Your task to perform on an android device: How much does the LG TV cost? Image 0: 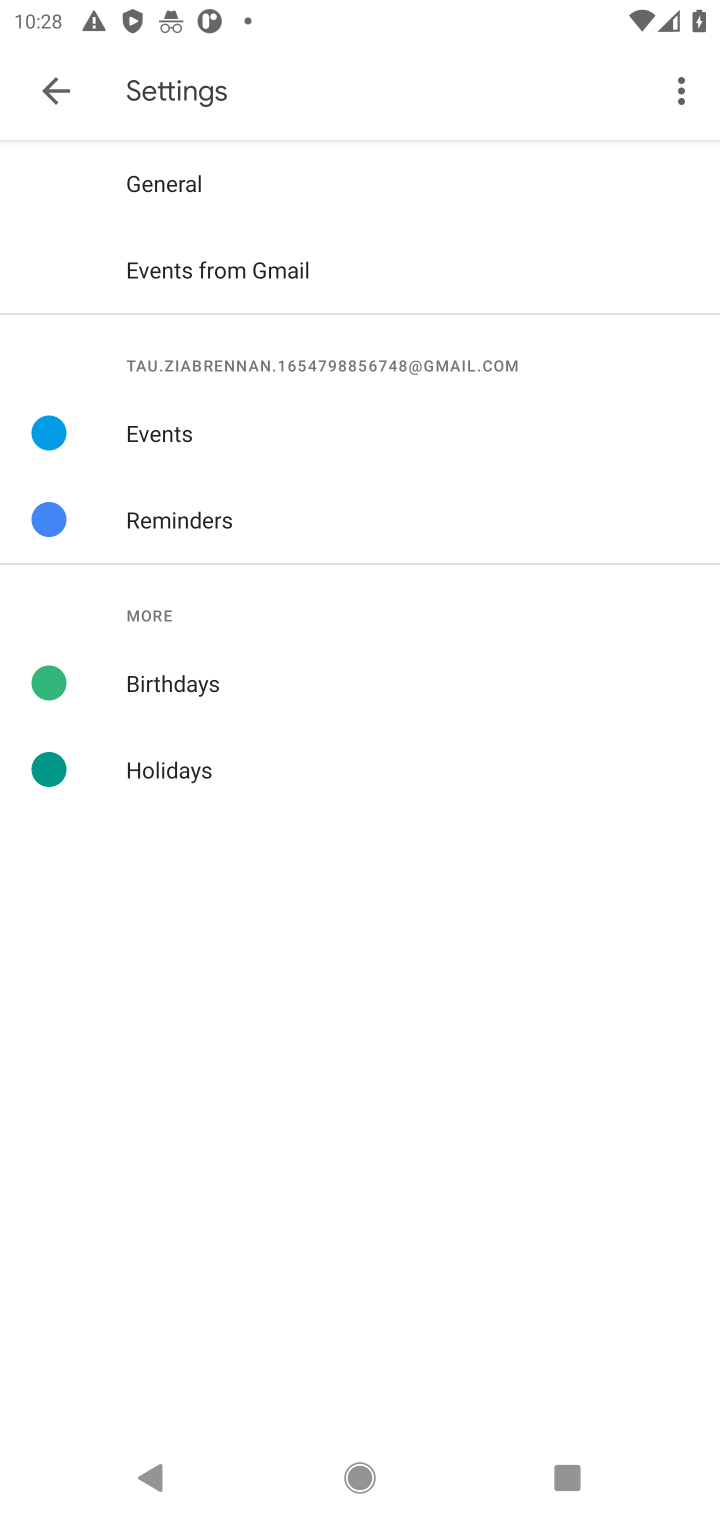
Step 0: press home button
Your task to perform on an android device: How much does the LG TV cost? Image 1: 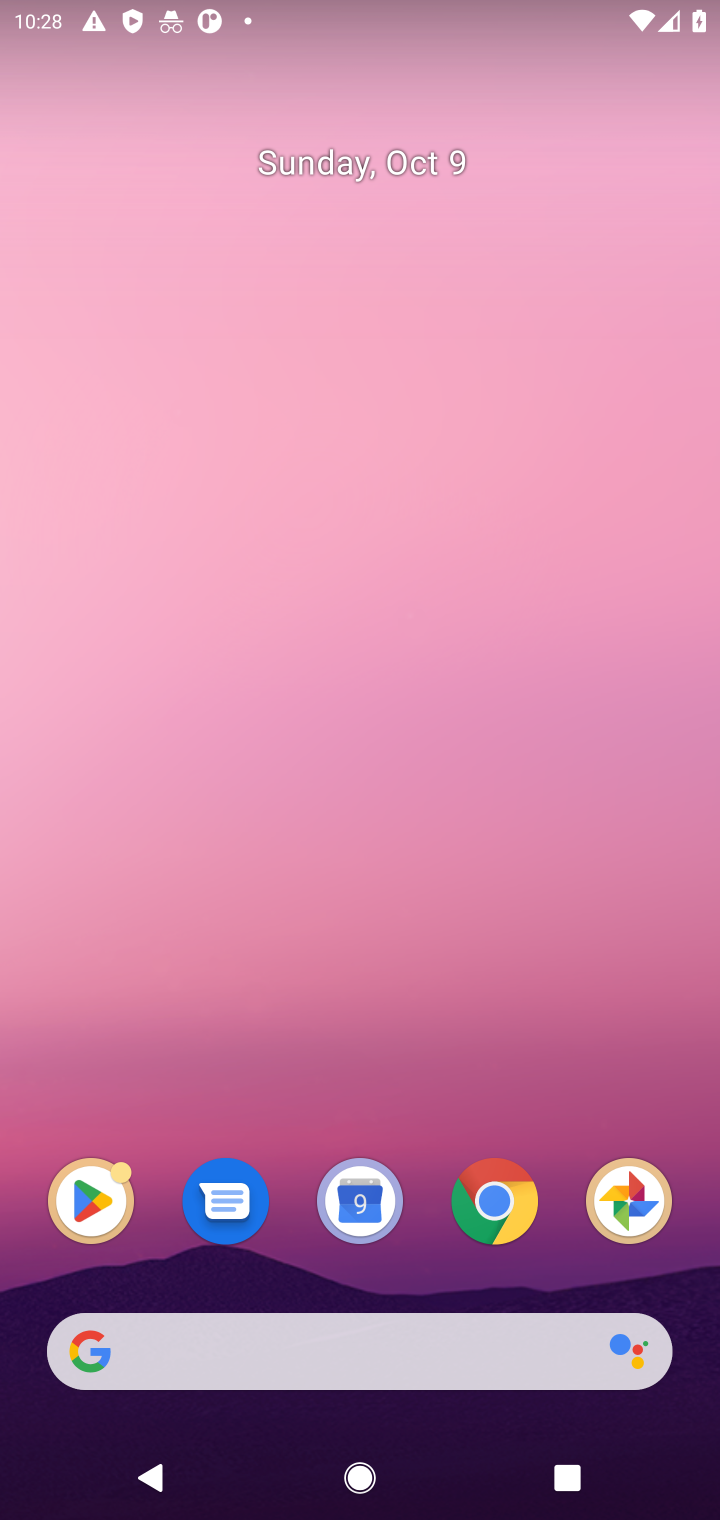
Step 1: click (479, 1208)
Your task to perform on an android device: How much does the LG TV cost? Image 2: 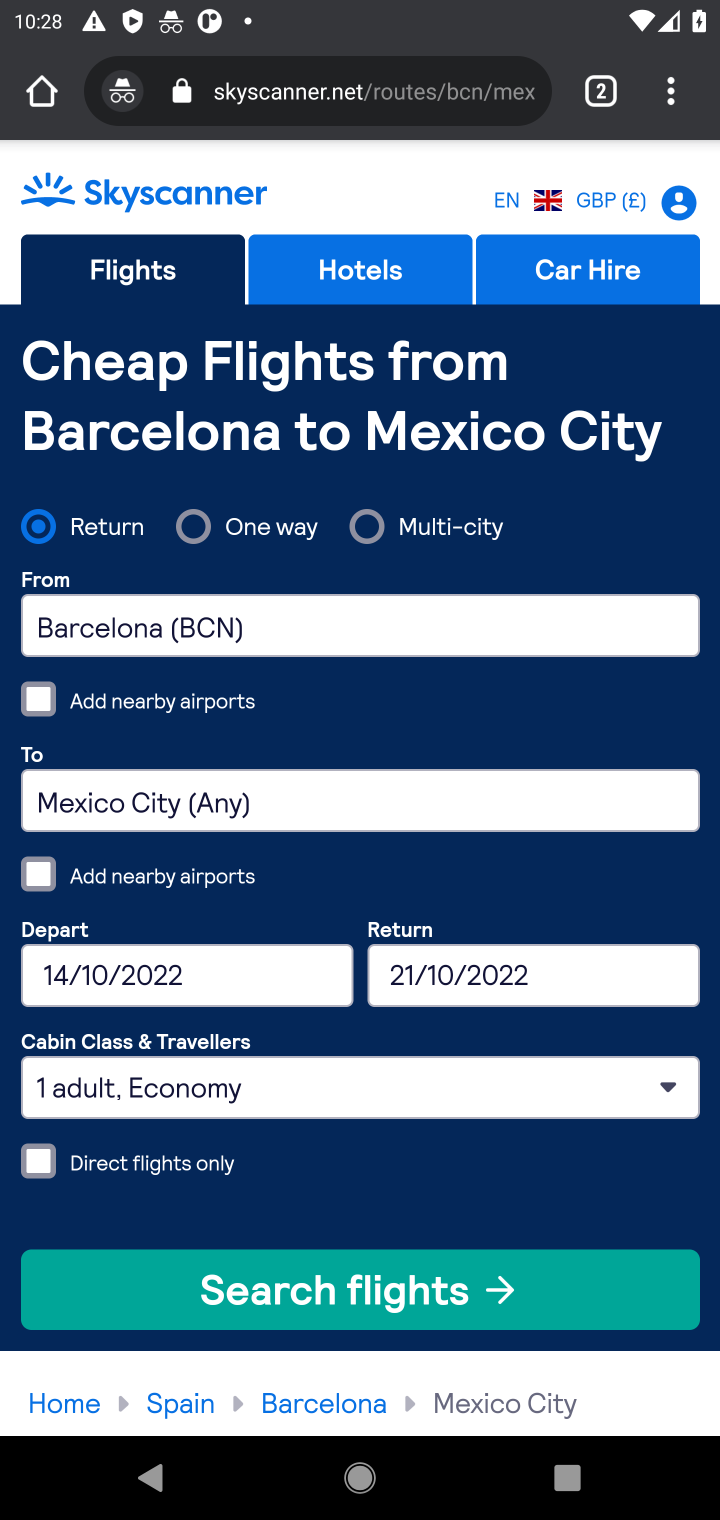
Step 2: click (354, 93)
Your task to perform on an android device: How much does the LG TV cost? Image 3: 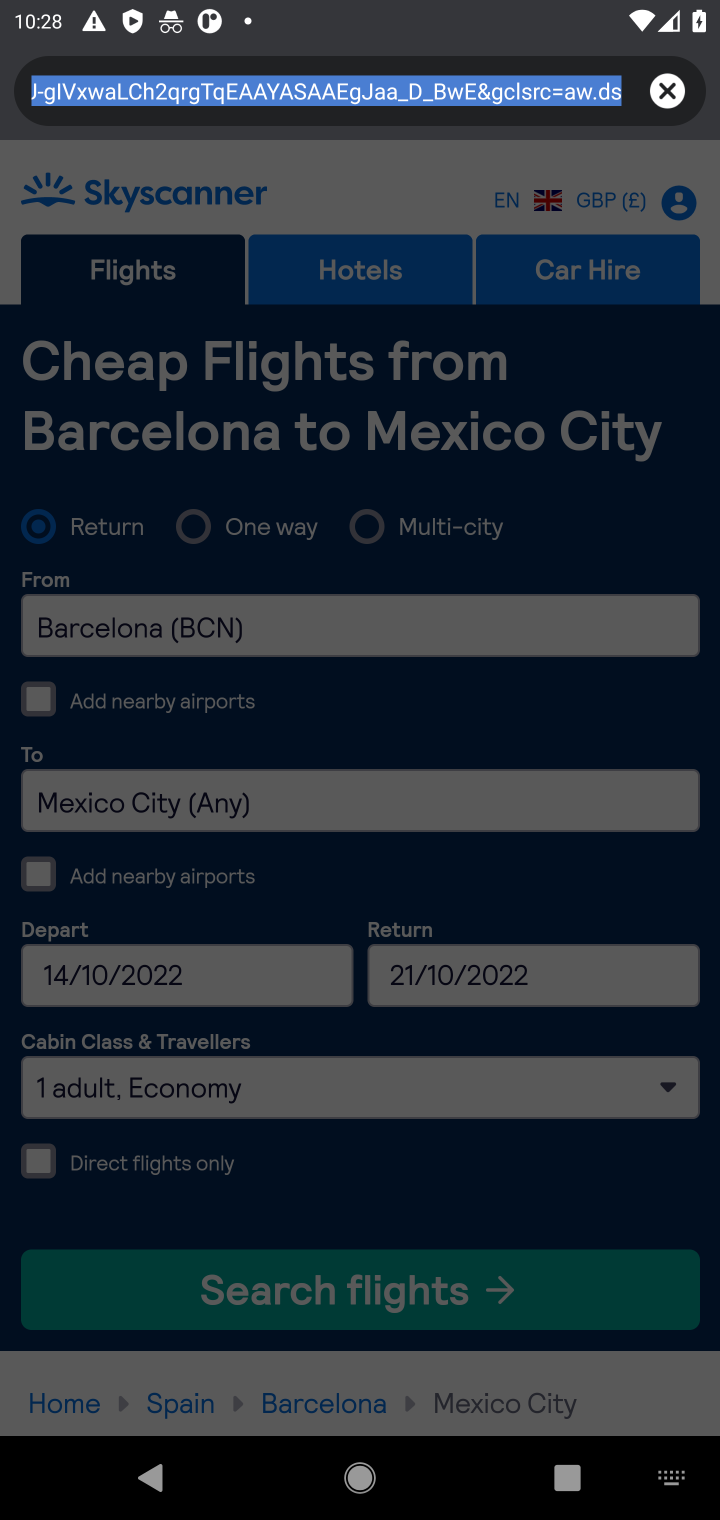
Step 3: type "How much does the LG TV cost?"
Your task to perform on an android device: How much does the LG TV cost? Image 4: 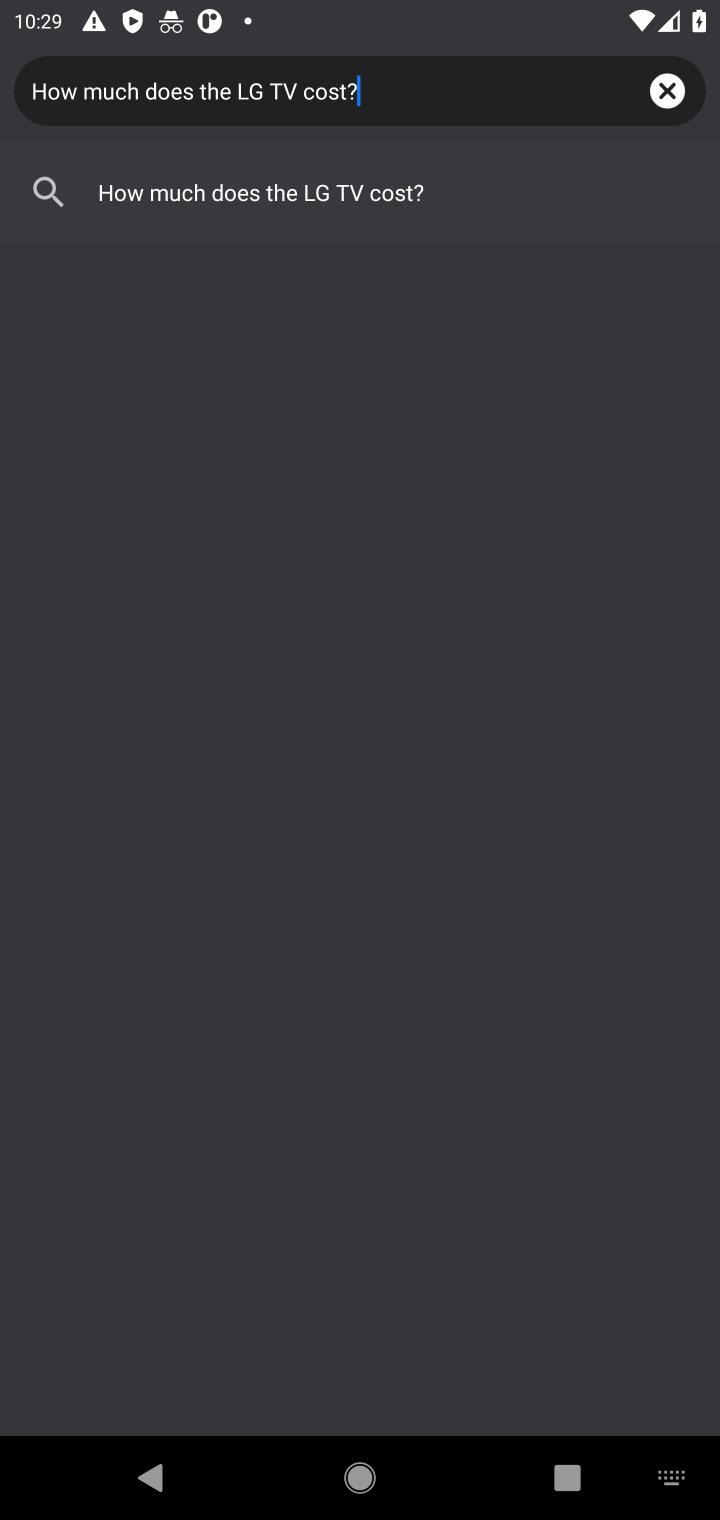
Step 4: click (462, 179)
Your task to perform on an android device: How much does the LG TV cost? Image 5: 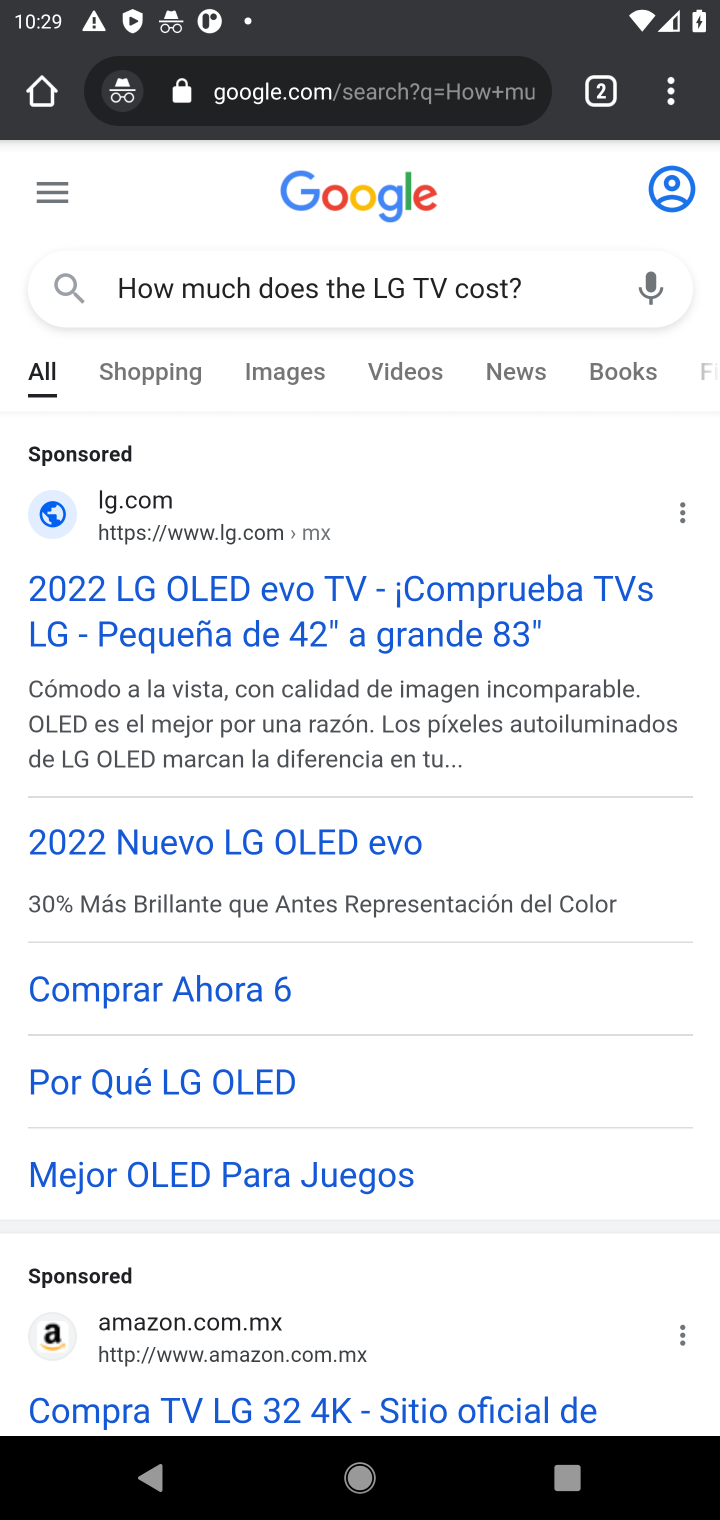
Step 5: click (274, 586)
Your task to perform on an android device: How much does the LG TV cost? Image 6: 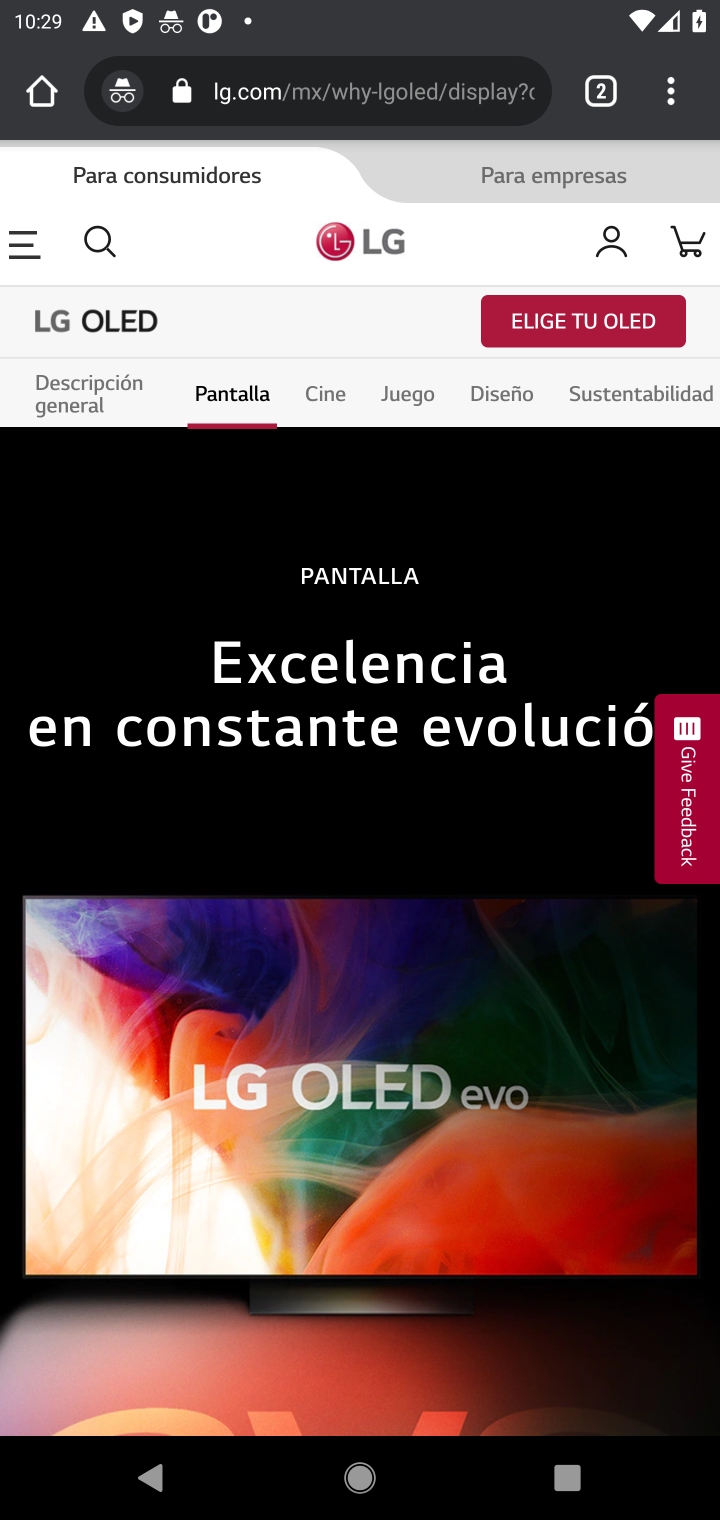
Step 6: task complete